Your task to perform on an android device: find which apps use the phone's location Image 0: 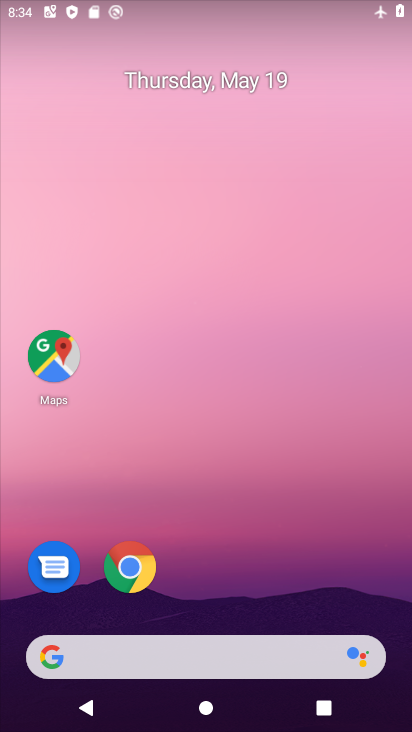
Step 0: drag from (223, 555) to (277, 99)
Your task to perform on an android device: find which apps use the phone's location Image 1: 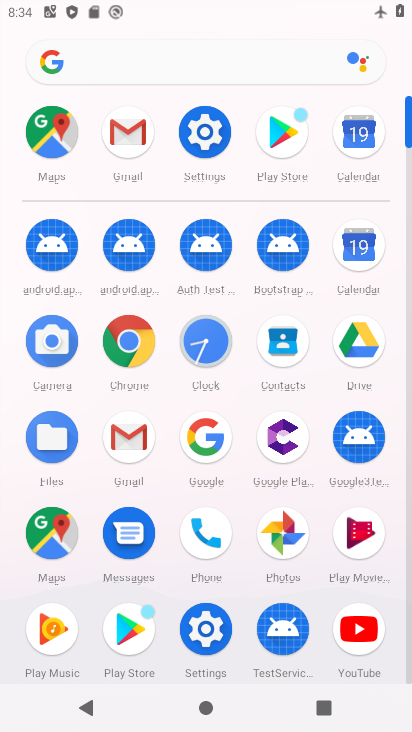
Step 1: click (207, 644)
Your task to perform on an android device: find which apps use the phone's location Image 2: 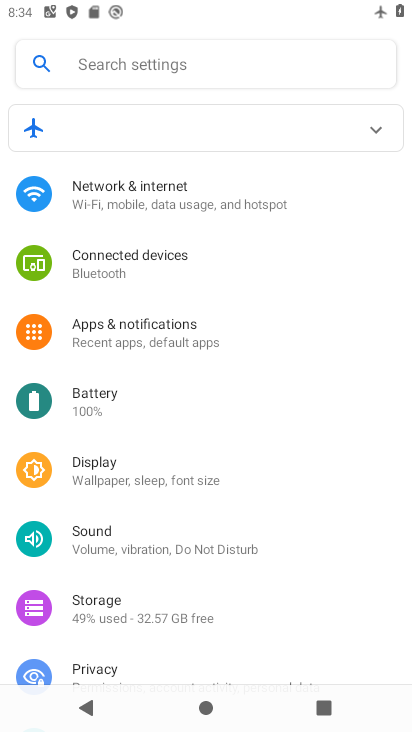
Step 2: drag from (147, 615) to (200, 412)
Your task to perform on an android device: find which apps use the phone's location Image 3: 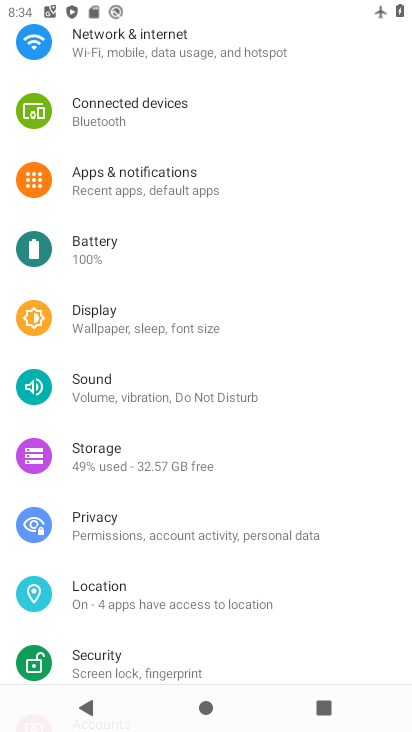
Step 3: click (148, 595)
Your task to perform on an android device: find which apps use the phone's location Image 4: 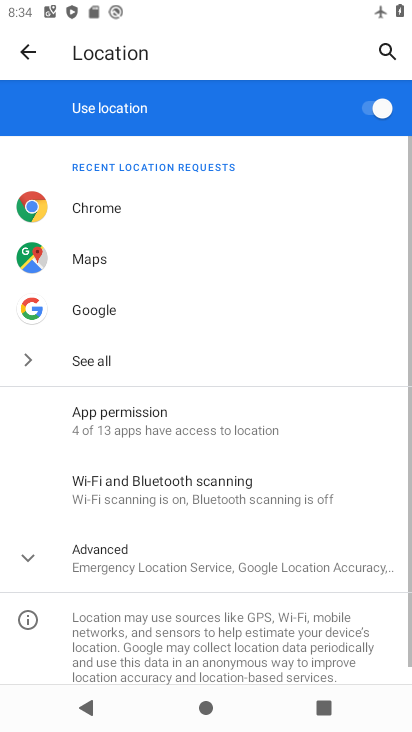
Step 4: click (105, 416)
Your task to perform on an android device: find which apps use the phone's location Image 5: 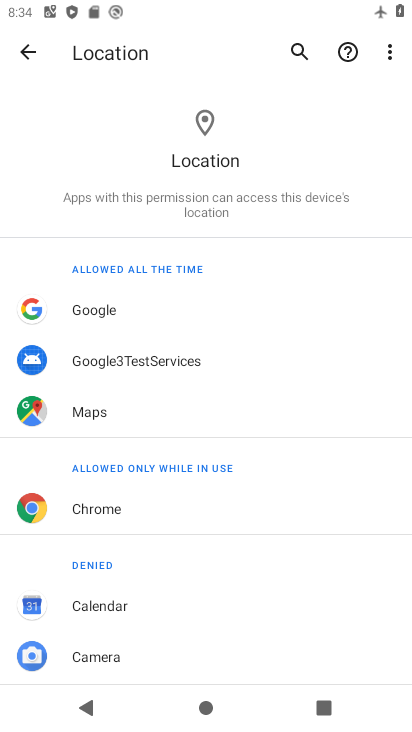
Step 5: task complete